Your task to perform on an android device: change notifications settings Image 0: 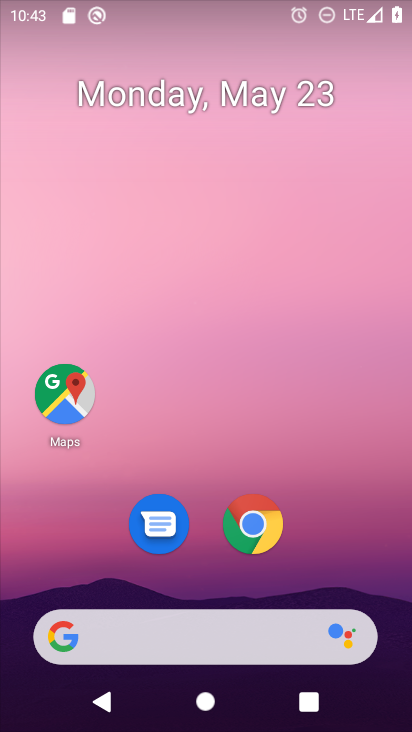
Step 0: drag from (317, 578) to (275, 79)
Your task to perform on an android device: change notifications settings Image 1: 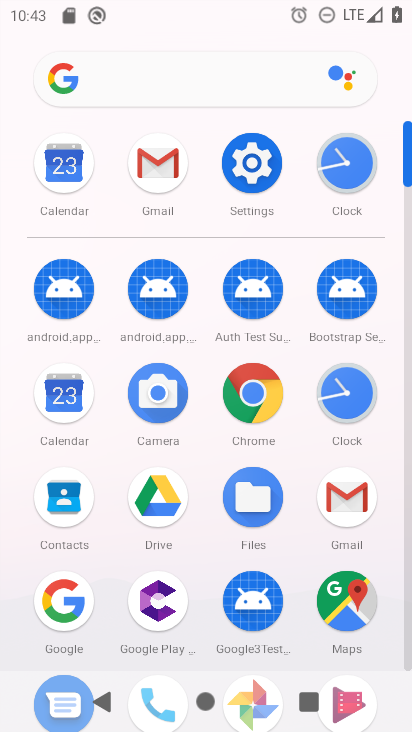
Step 1: click (262, 143)
Your task to perform on an android device: change notifications settings Image 2: 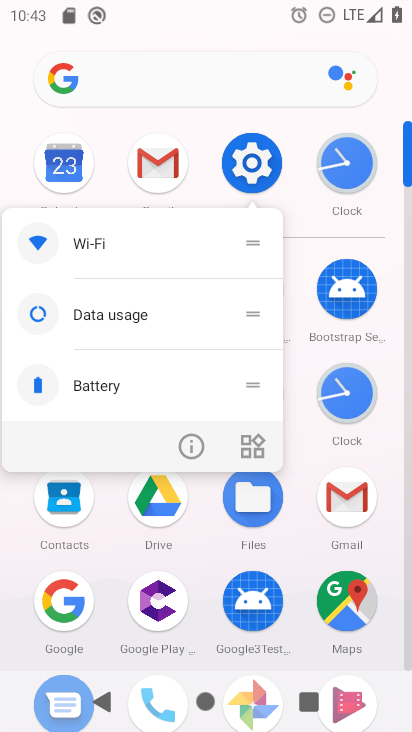
Step 2: click (256, 152)
Your task to perform on an android device: change notifications settings Image 3: 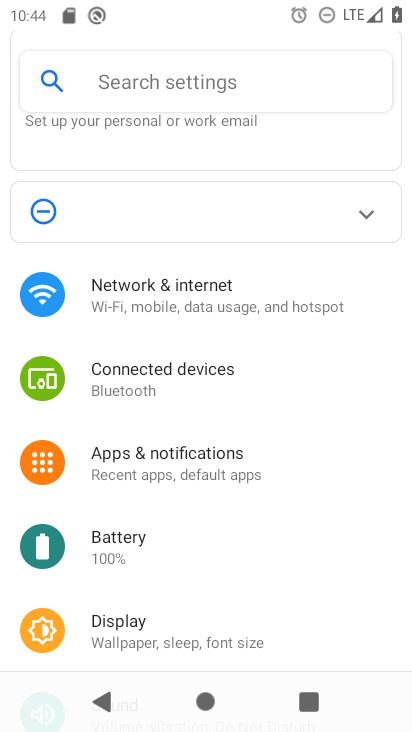
Step 3: click (201, 457)
Your task to perform on an android device: change notifications settings Image 4: 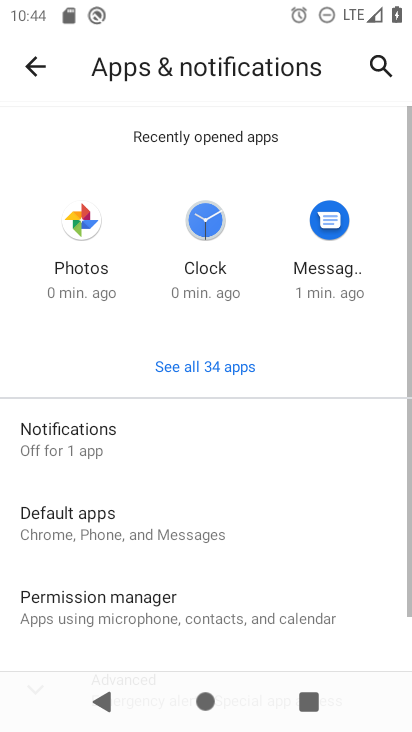
Step 4: click (194, 443)
Your task to perform on an android device: change notifications settings Image 5: 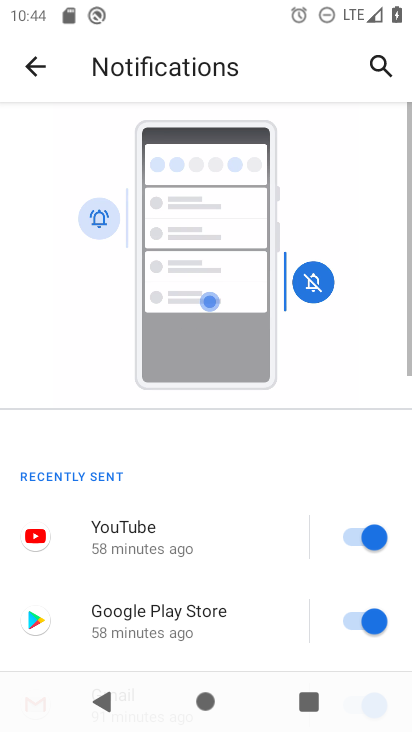
Step 5: drag from (186, 499) to (196, 152)
Your task to perform on an android device: change notifications settings Image 6: 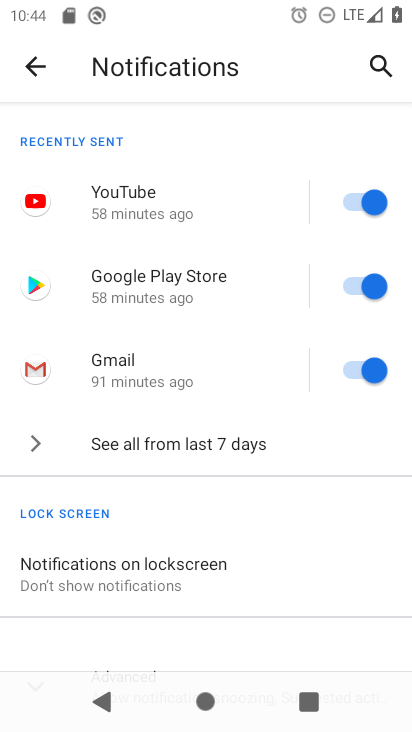
Step 6: click (211, 436)
Your task to perform on an android device: change notifications settings Image 7: 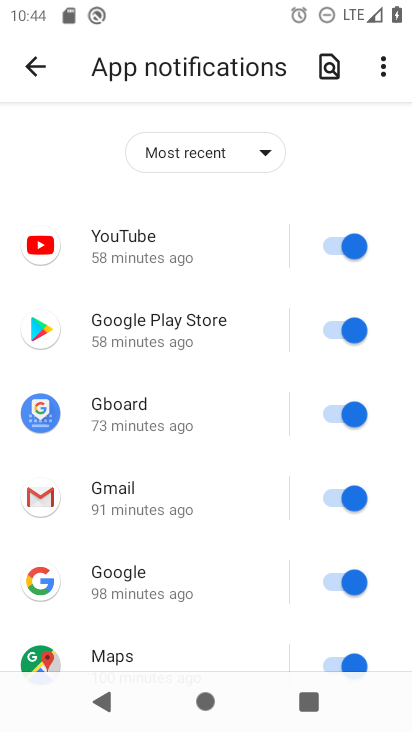
Step 7: click (341, 231)
Your task to perform on an android device: change notifications settings Image 8: 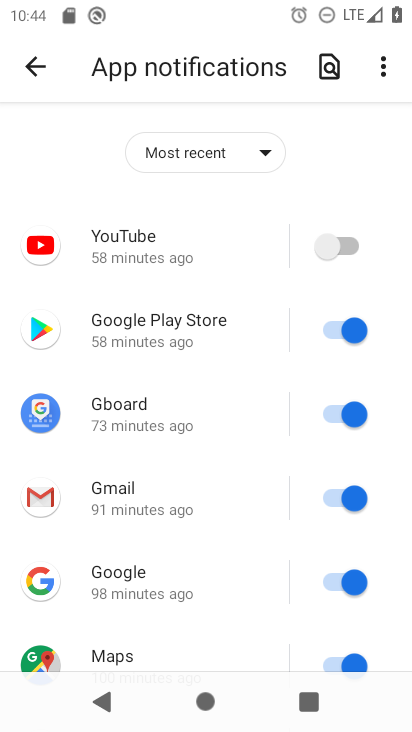
Step 8: click (349, 324)
Your task to perform on an android device: change notifications settings Image 9: 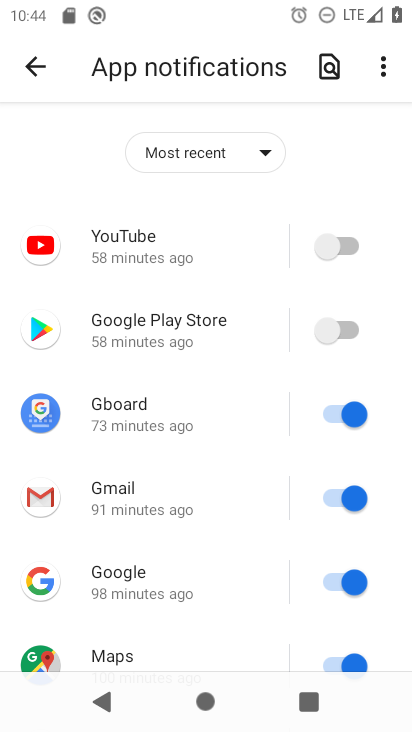
Step 9: click (347, 405)
Your task to perform on an android device: change notifications settings Image 10: 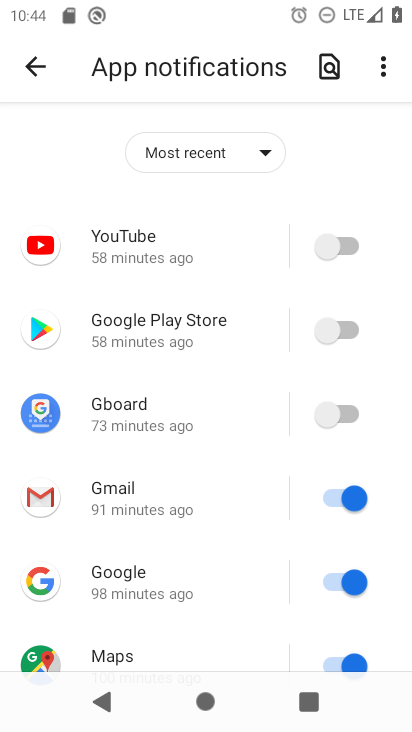
Step 10: click (347, 484)
Your task to perform on an android device: change notifications settings Image 11: 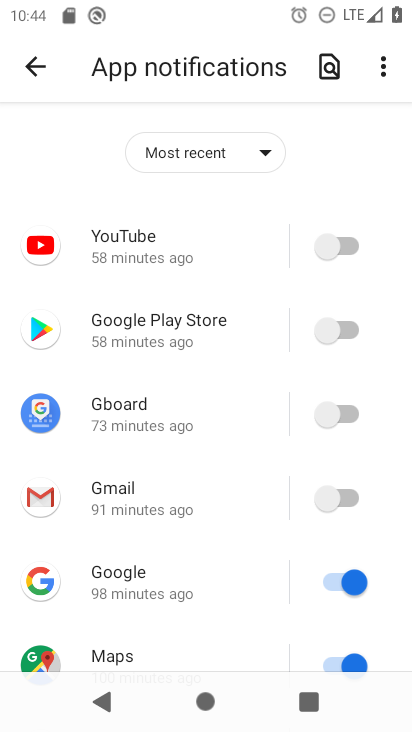
Step 11: click (338, 566)
Your task to perform on an android device: change notifications settings Image 12: 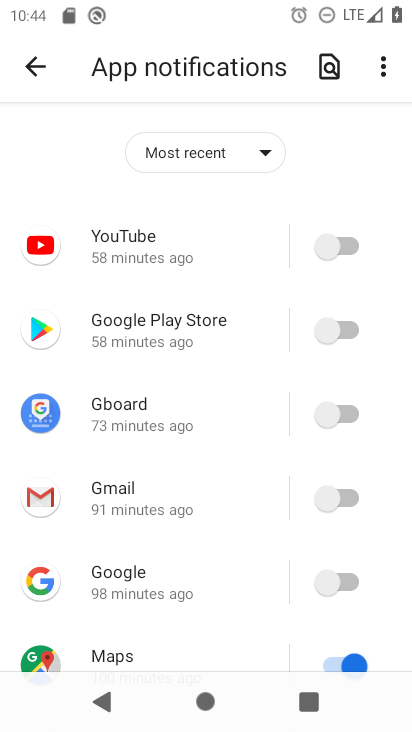
Step 12: drag from (198, 524) to (225, 82)
Your task to perform on an android device: change notifications settings Image 13: 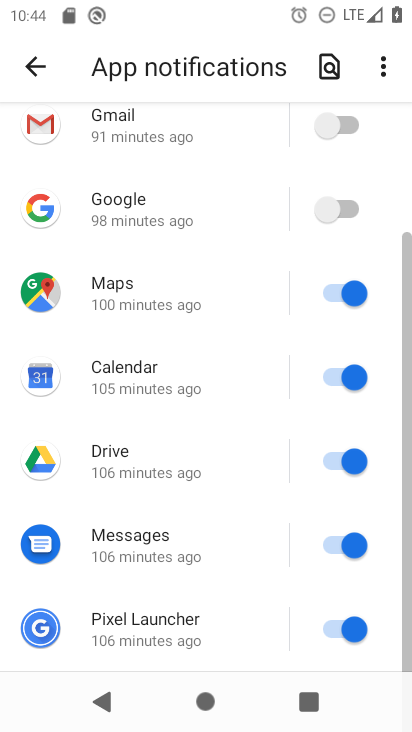
Step 13: drag from (223, 266) to (220, 142)
Your task to perform on an android device: change notifications settings Image 14: 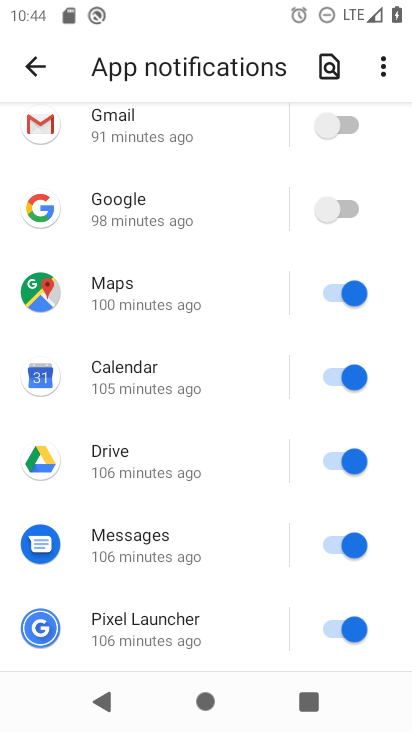
Step 14: click (337, 284)
Your task to perform on an android device: change notifications settings Image 15: 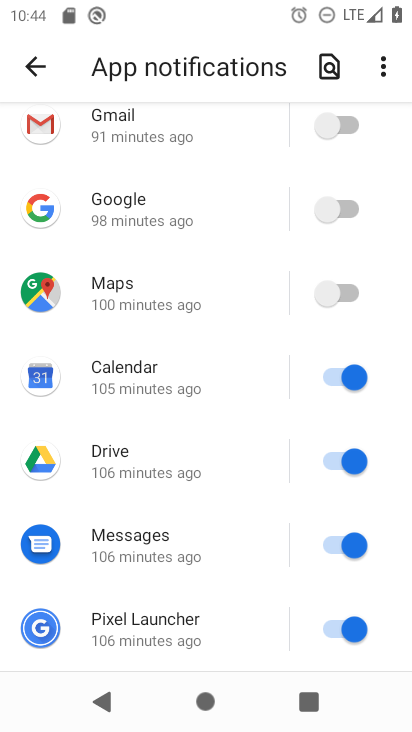
Step 15: click (340, 370)
Your task to perform on an android device: change notifications settings Image 16: 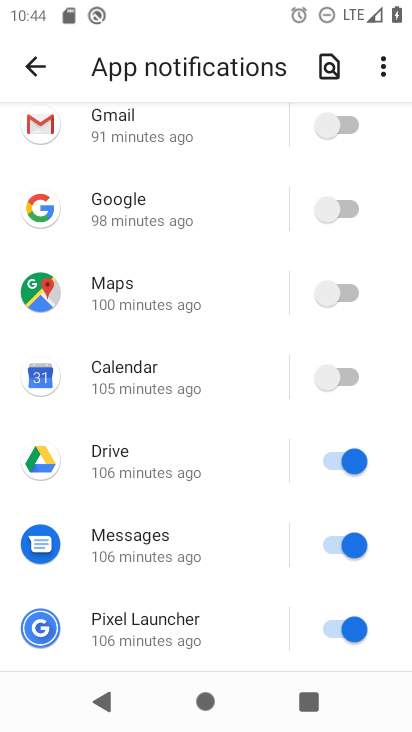
Step 16: click (337, 458)
Your task to perform on an android device: change notifications settings Image 17: 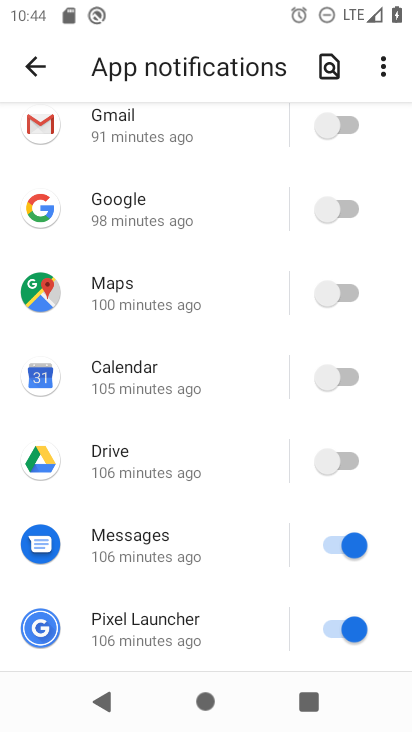
Step 17: click (345, 532)
Your task to perform on an android device: change notifications settings Image 18: 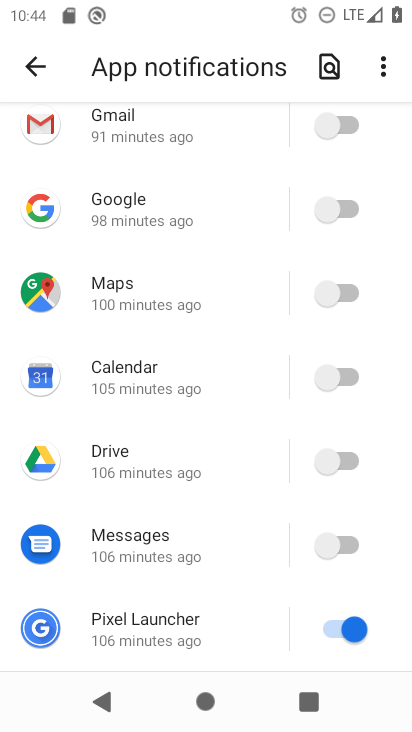
Step 18: click (345, 623)
Your task to perform on an android device: change notifications settings Image 19: 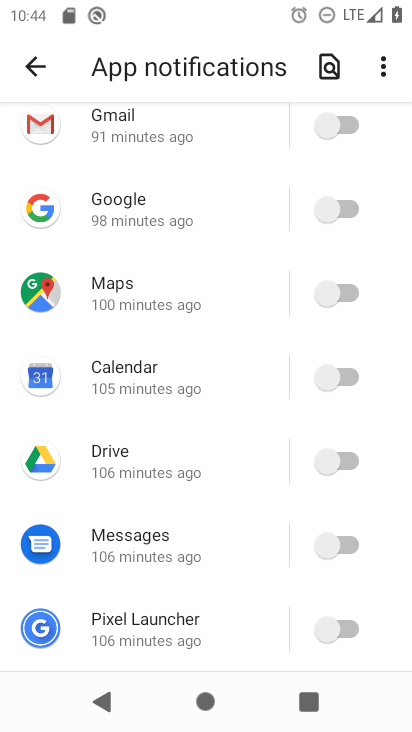
Step 19: task complete